Your task to perform on an android device: check data usage Image 0: 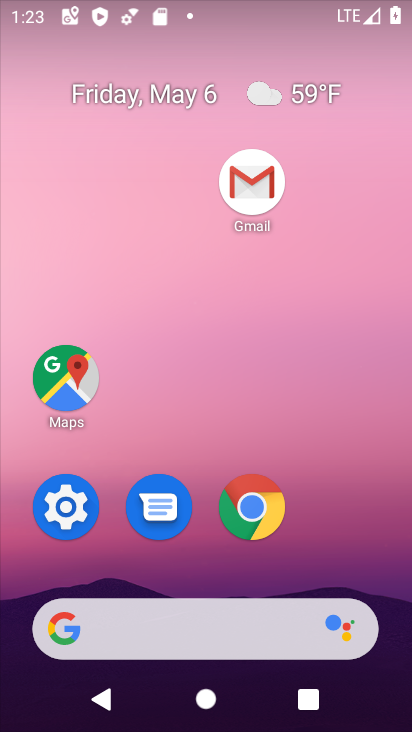
Step 0: click (341, 529)
Your task to perform on an android device: check data usage Image 1: 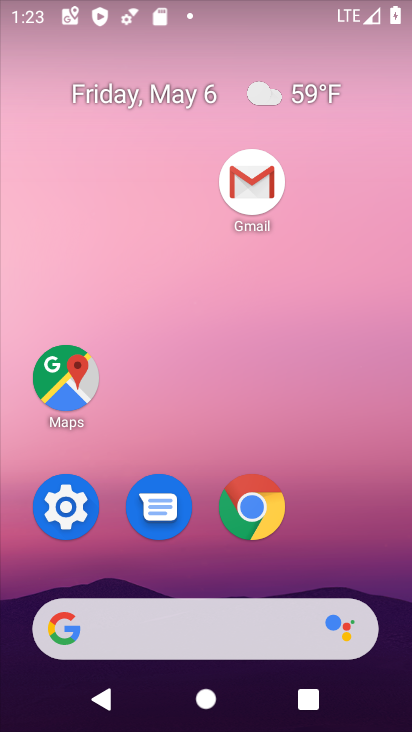
Step 1: click (66, 505)
Your task to perform on an android device: check data usage Image 2: 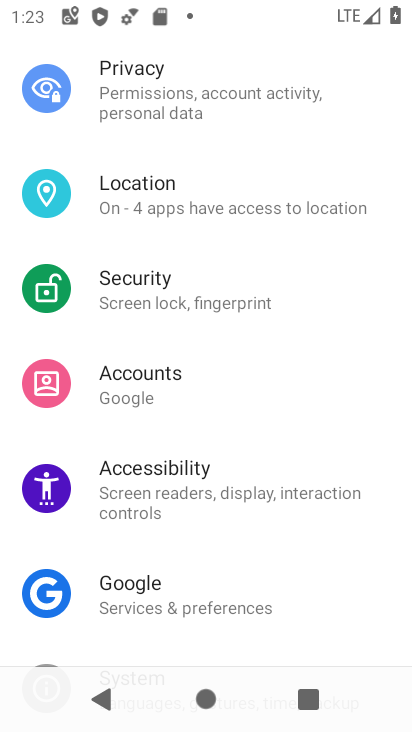
Step 2: drag from (202, 180) to (221, 518)
Your task to perform on an android device: check data usage Image 3: 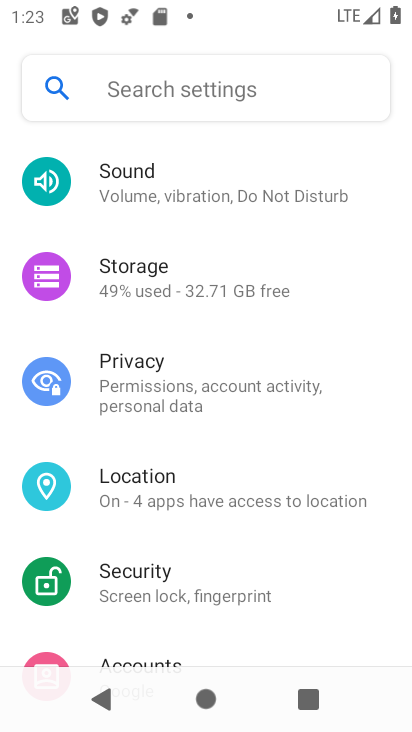
Step 3: drag from (301, 219) to (226, 717)
Your task to perform on an android device: check data usage Image 4: 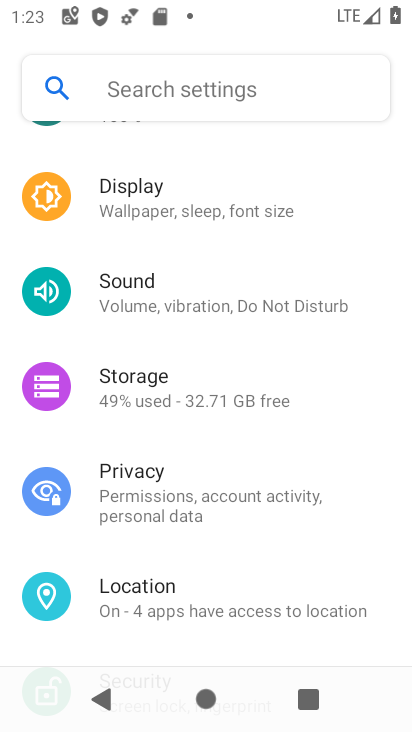
Step 4: drag from (210, 240) to (216, 473)
Your task to perform on an android device: check data usage Image 5: 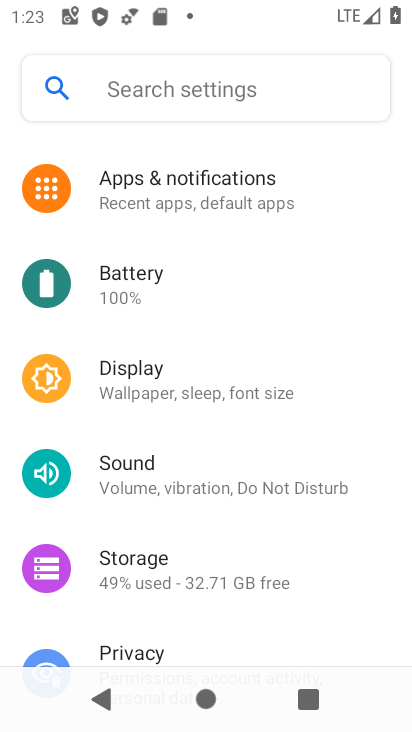
Step 5: drag from (201, 236) to (197, 466)
Your task to perform on an android device: check data usage Image 6: 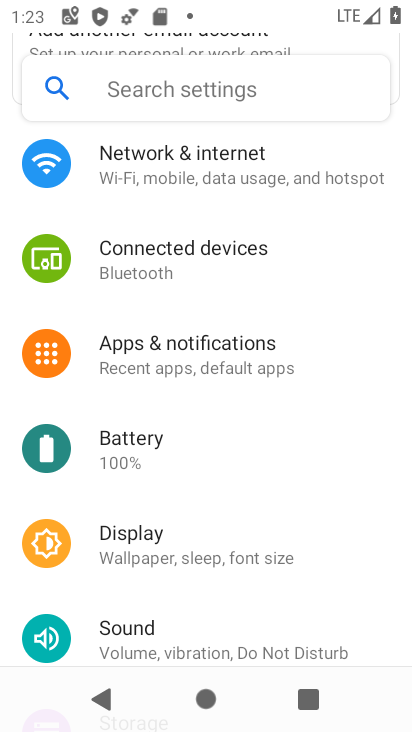
Step 6: drag from (181, 313) to (221, 622)
Your task to perform on an android device: check data usage Image 7: 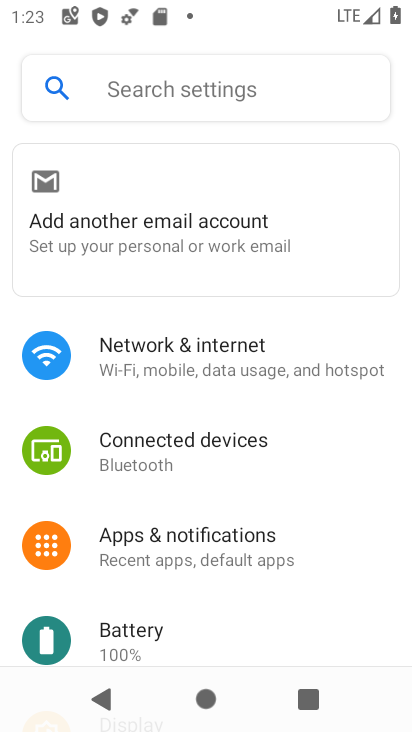
Step 7: click (197, 344)
Your task to perform on an android device: check data usage Image 8: 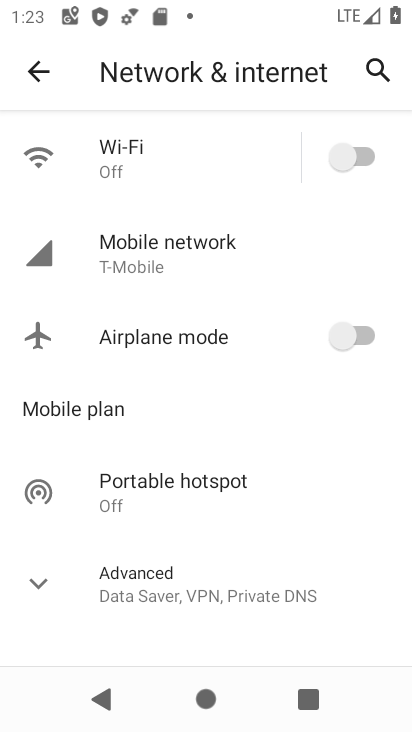
Step 8: click (150, 238)
Your task to perform on an android device: check data usage Image 9: 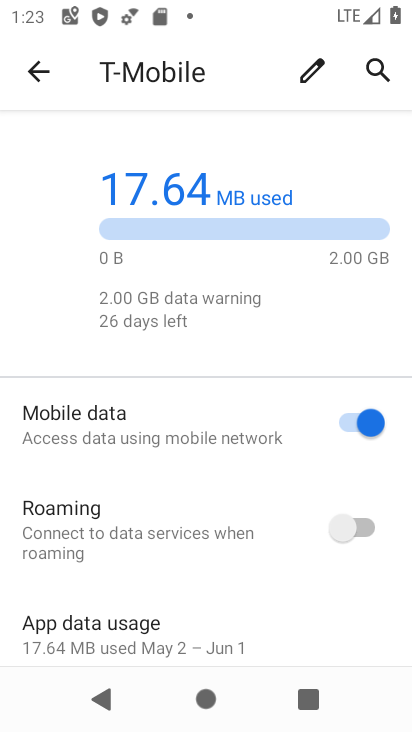
Step 9: task complete